Your task to perform on an android device: What's the weather today? Image 0: 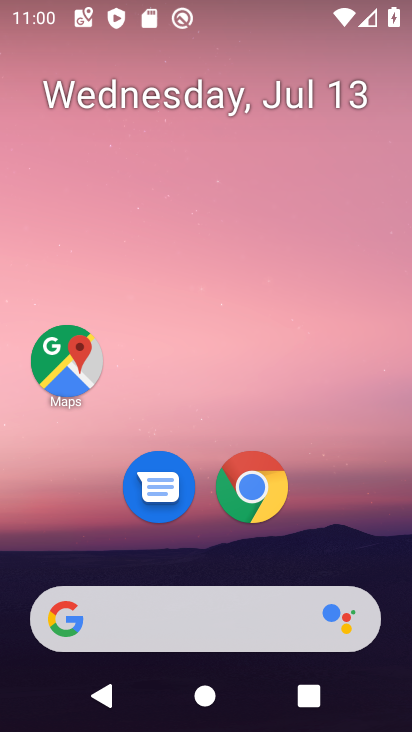
Step 0: click (212, 604)
Your task to perform on an android device: What's the weather today? Image 1: 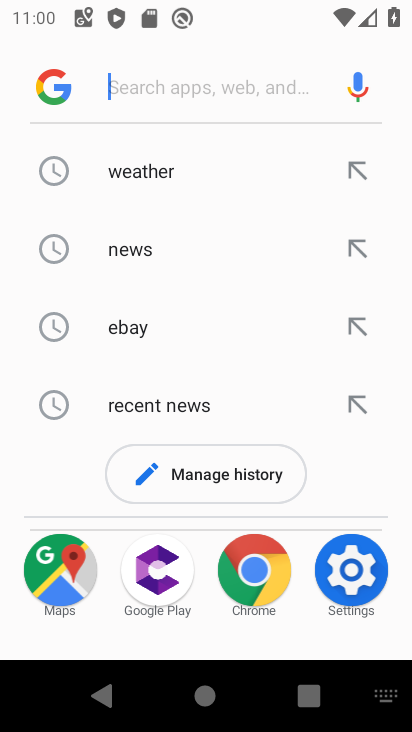
Step 1: click (150, 176)
Your task to perform on an android device: What's the weather today? Image 2: 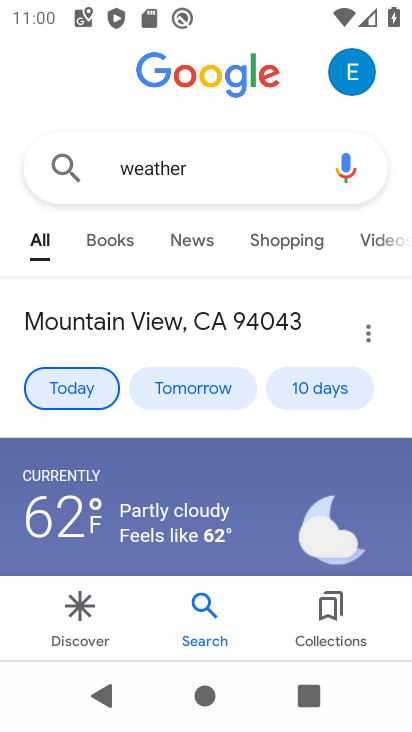
Step 2: task complete